Your task to perform on an android device: clear all cookies in the chrome app Image 0: 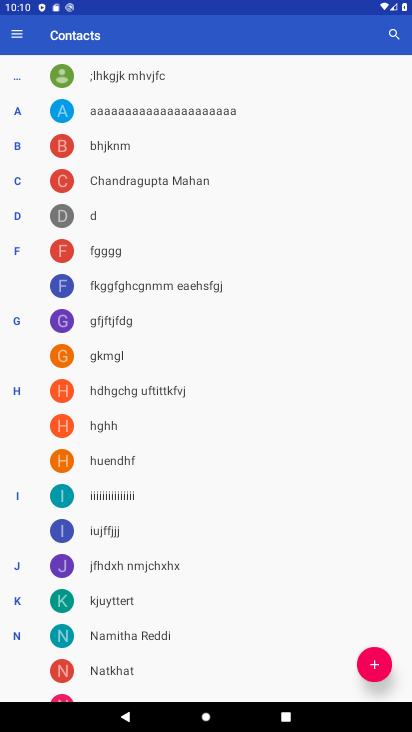
Step 0: press home button
Your task to perform on an android device: clear all cookies in the chrome app Image 1: 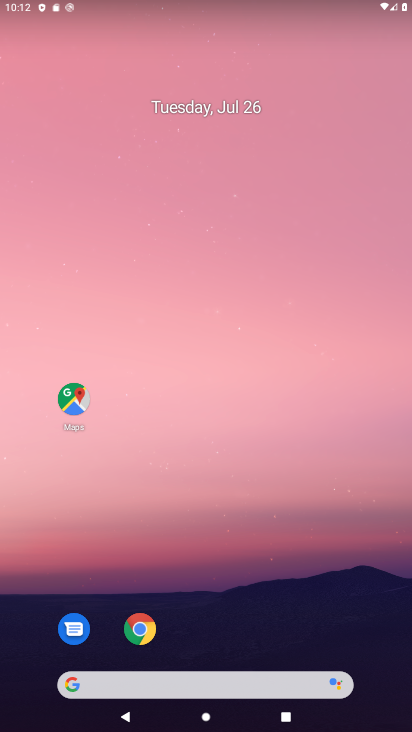
Step 1: drag from (330, 588) to (165, 23)
Your task to perform on an android device: clear all cookies in the chrome app Image 2: 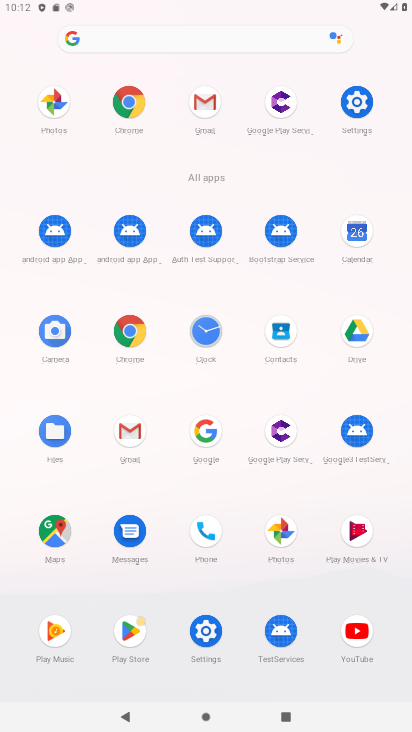
Step 2: click (138, 335)
Your task to perform on an android device: clear all cookies in the chrome app Image 3: 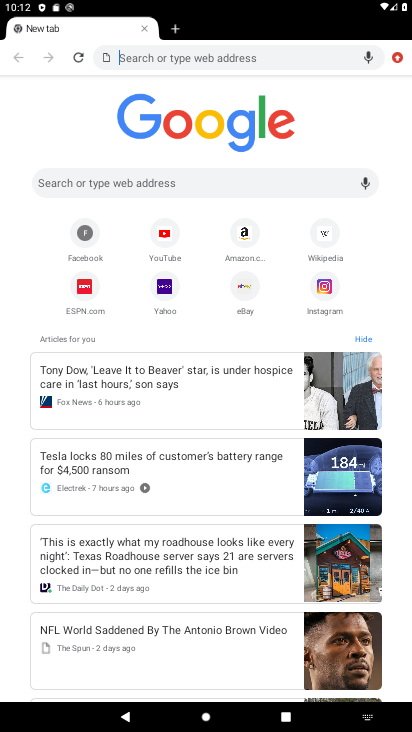
Step 3: click (399, 59)
Your task to perform on an android device: clear all cookies in the chrome app Image 4: 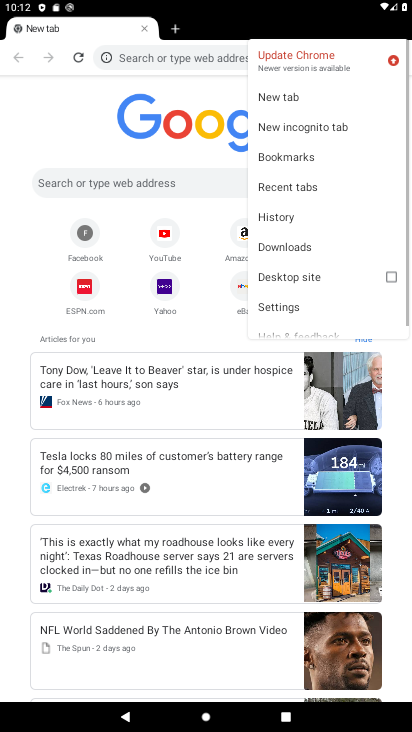
Step 4: click (277, 215)
Your task to perform on an android device: clear all cookies in the chrome app Image 5: 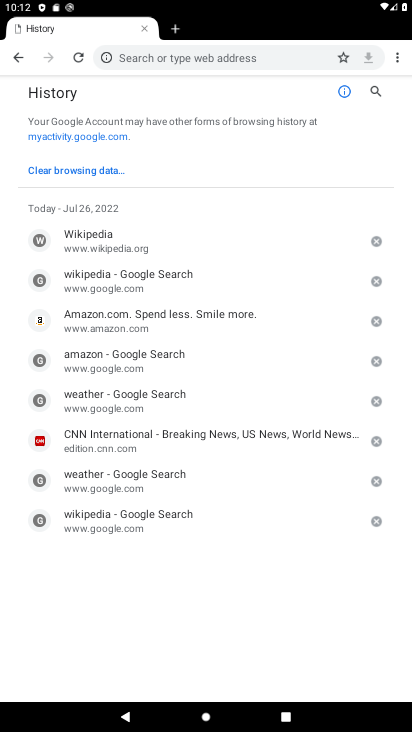
Step 5: click (84, 174)
Your task to perform on an android device: clear all cookies in the chrome app Image 6: 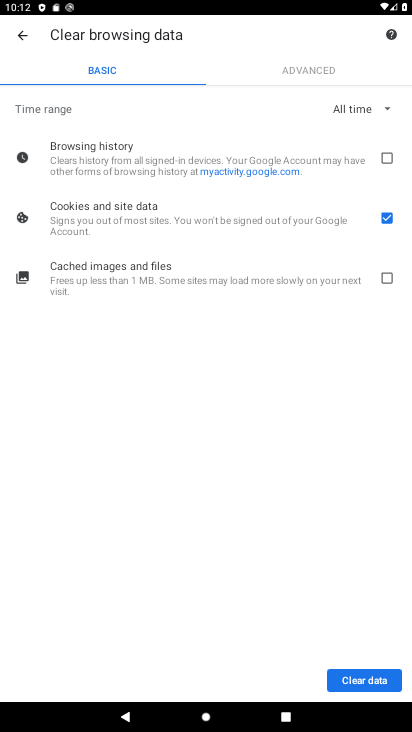
Step 6: click (361, 687)
Your task to perform on an android device: clear all cookies in the chrome app Image 7: 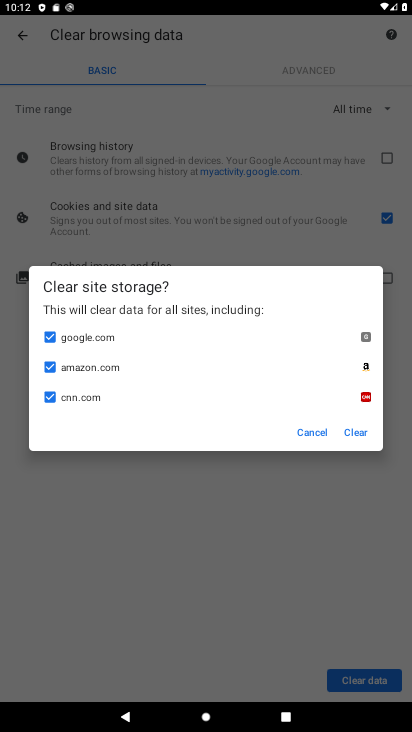
Step 7: click (358, 428)
Your task to perform on an android device: clear all cookies in the chrome app Image 8: 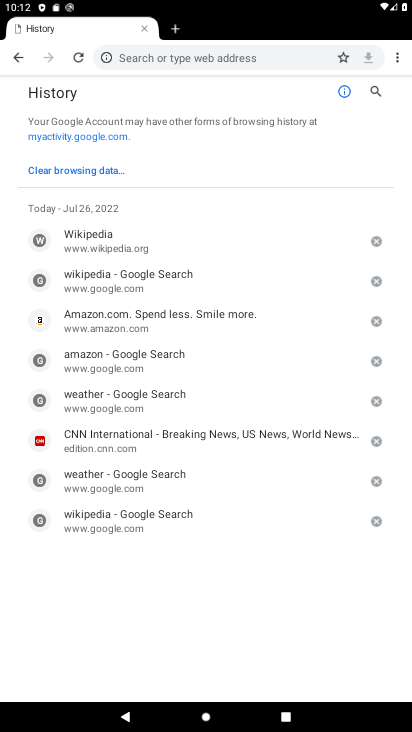
Step 8: task complete